Your task to perform on an android device: read, delete, or share a saved page in the chrome app Image 0: 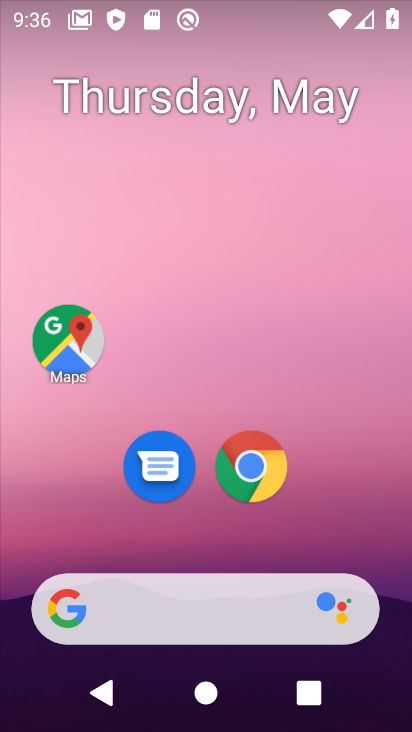
Step 0: click (250, 458)
Your task to perform on an android device: read, delete, or share a saved page in the chrome app Image 1: 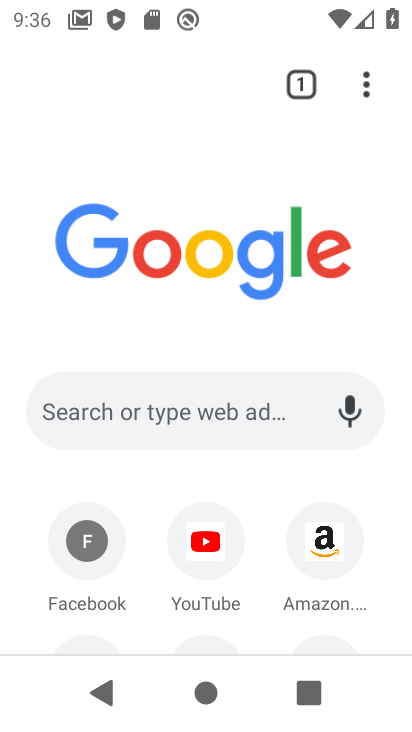
Step 1: drag from (370, 91) to (125, 558)
Your task to perform on an android device: read, delete, or share a saved page in the chrome app Image 2: 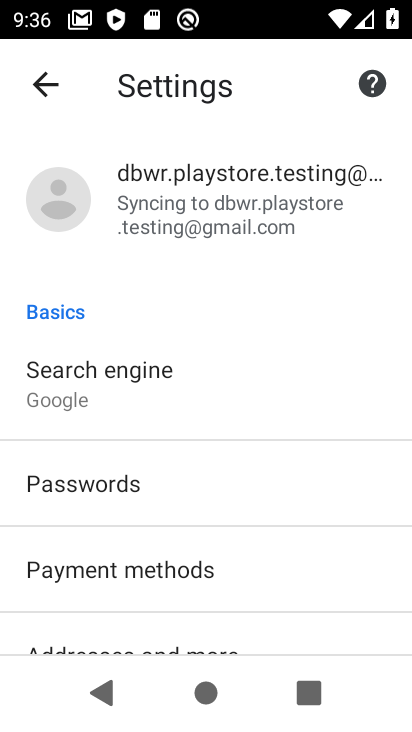
Step 2: click (47, 84)
Your task to perform on an android device: read, delete, or share a saved page in the chrome app Image 3: 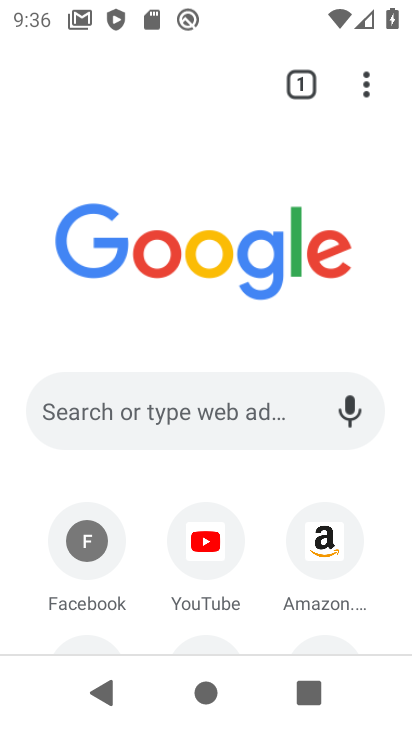
Step 3: task complete